Your task to perform on an android device: Go to accessibility settings Image 0: 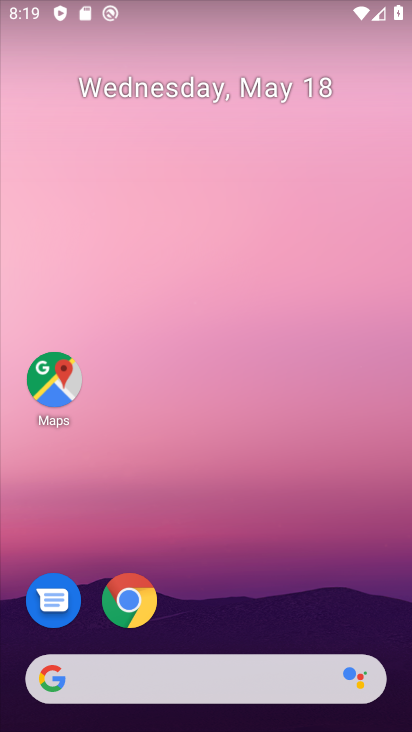
Step 0: drag from (90, 615) to (396, 294)
Your task to perform on an android device: Go to accessibility settings Image 1: 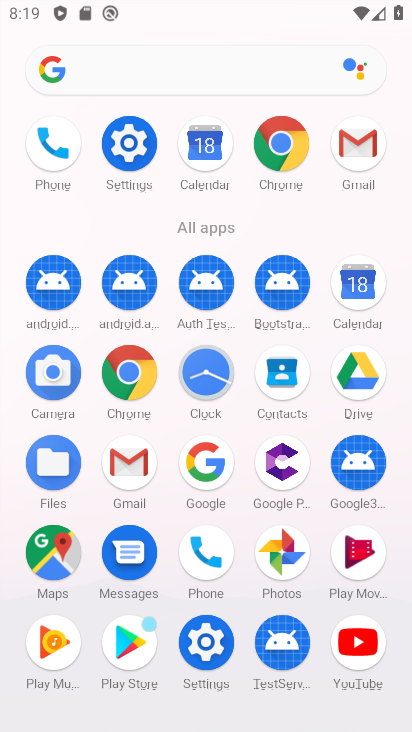
Step 1: click (130, 144)
Your task to perform on an android device: Go to accessibility settings Image 2: 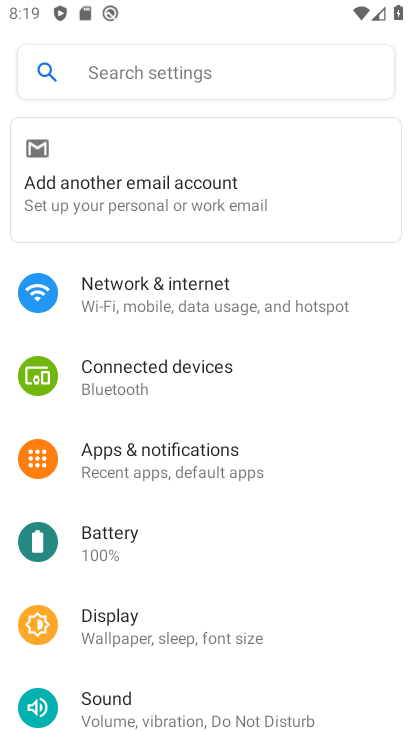
Step 2: drag from (132, 709) to (336, 250)
Your task to perform on an android device: Go to accessibility settings Image 3: 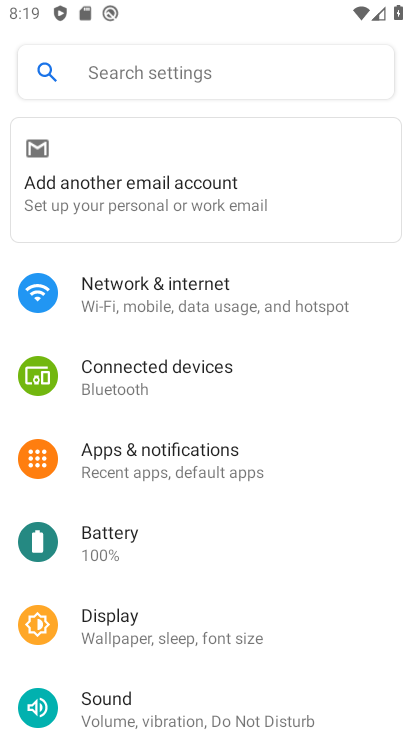
Step 3: drag from (27, 597) to (196, 329)
Your task to perform on an android device: Go to accessibility settings Image 4: 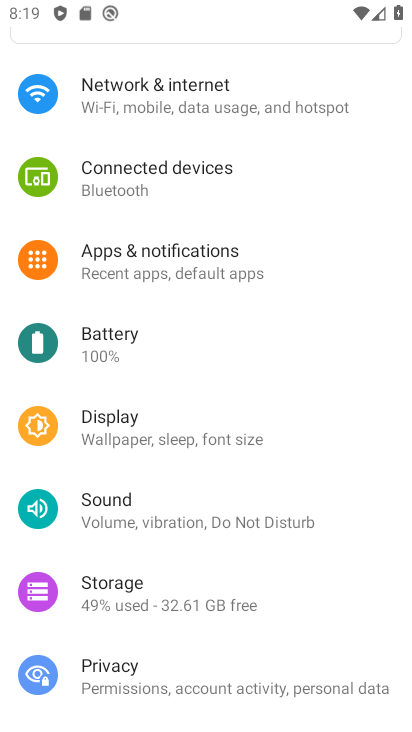
Step 4: drag from (15, 690) to (253, 355)
Your task to perform on an android device: Go to accessibility settings Image 5: 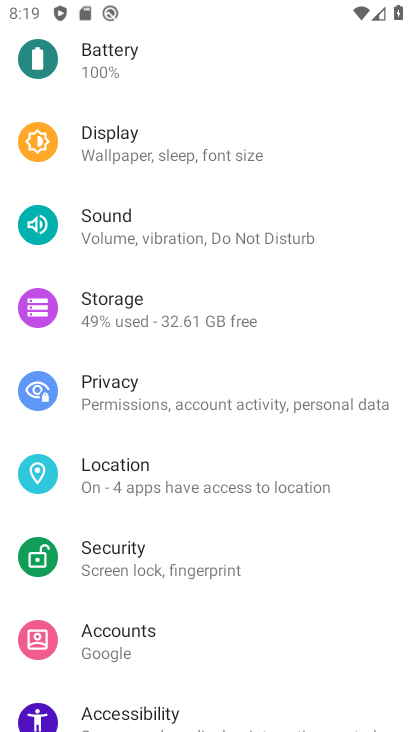
Step 5: drag from (11, 626) to (187, 366)
Your task to perform on an android device: Go to accessibility settings Image 6: 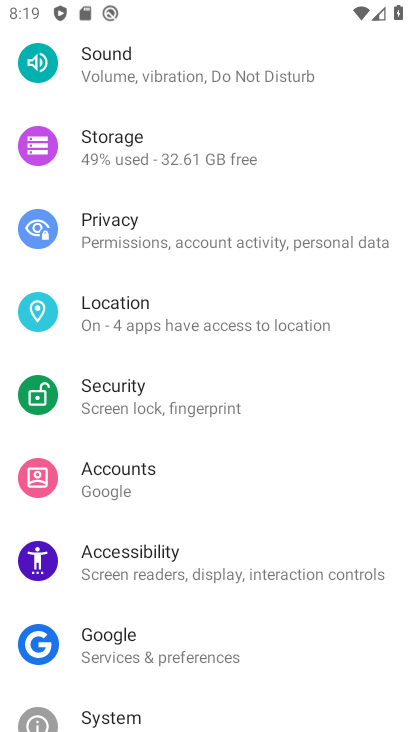
Step 6: click (115, 580)
Your task to perform on an android device: Go to accessibility settings Image 7: 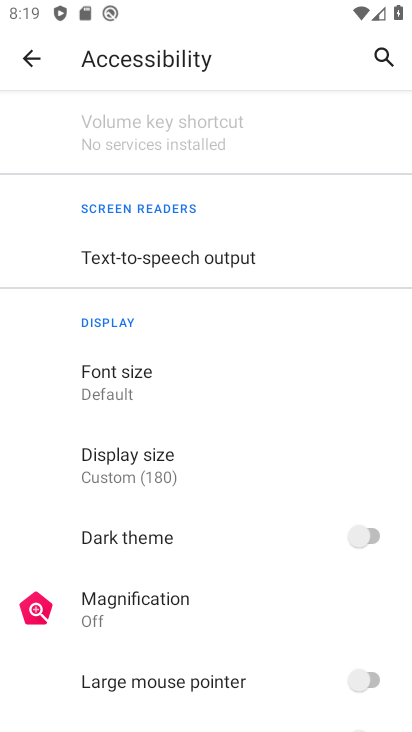
Step 7: task complete